Your task to perform on an android device: Go to wifi settings Image 0: 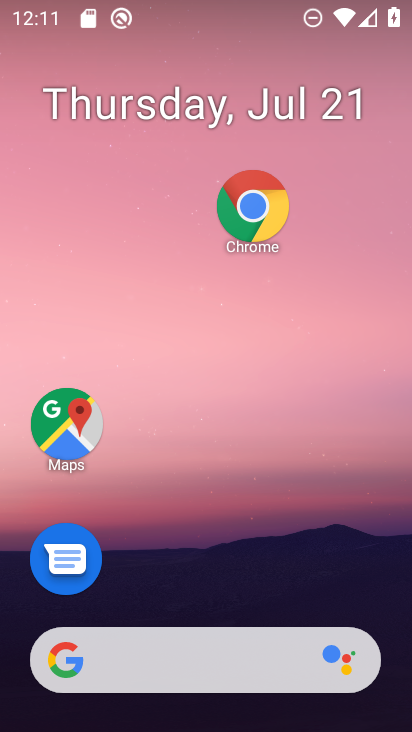
Step 0: drag from (146, 631) to (253, 132)
Your task to perform on an android device: Go to wifi settings Image 1: 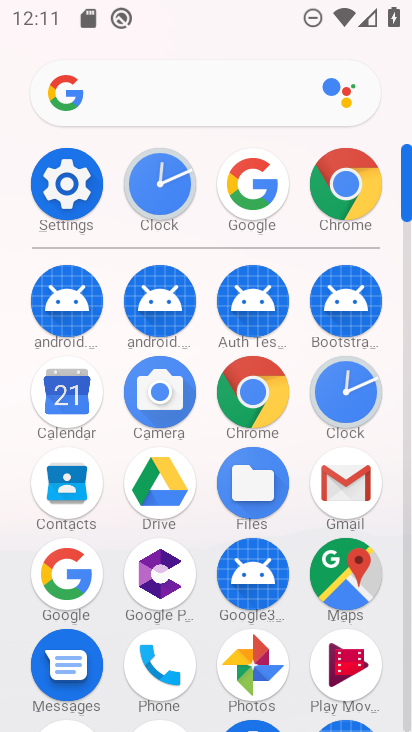
Step 1: click (84, 178)
Your task to perform on an android device: Go to wifi settings Image 2: 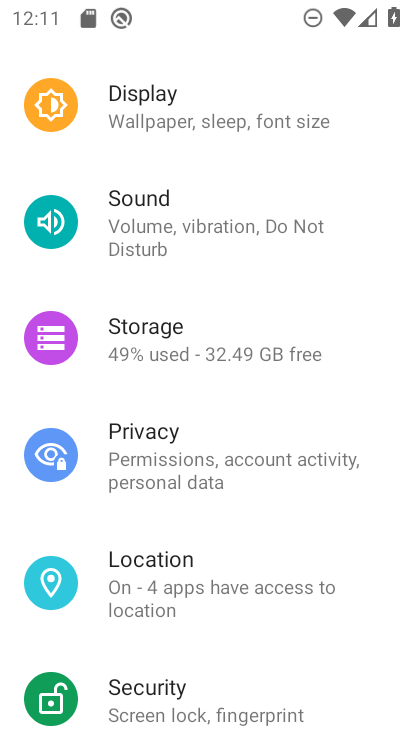
Step 2: drag from (152, 306) to (186, 681)
Your task to perform on an android device: Go to wifi settings Image 3: 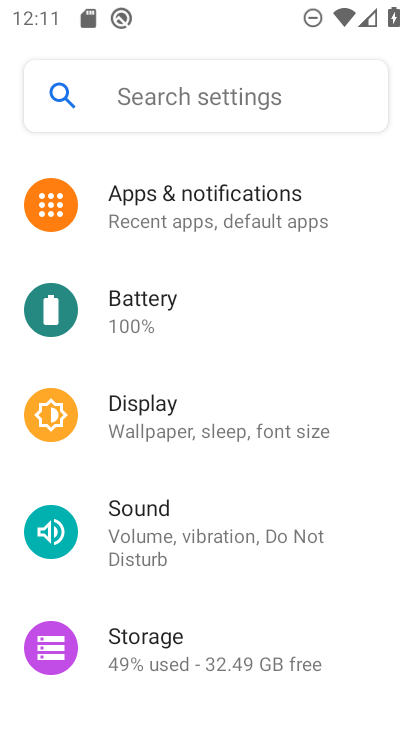
Step 3: drag from (193, 394) to (180, 713)
Your task to perform on an android device: Go to wifi settings Image 4: 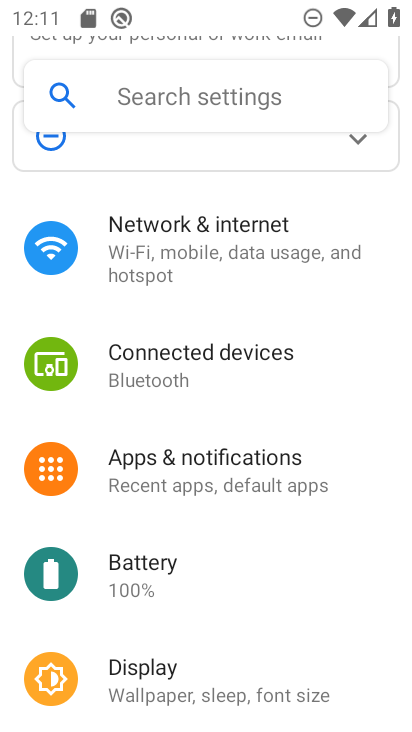
Step 4: click (178, 256)
Your task to perform on an android device: Go to wifi settings Image 5: 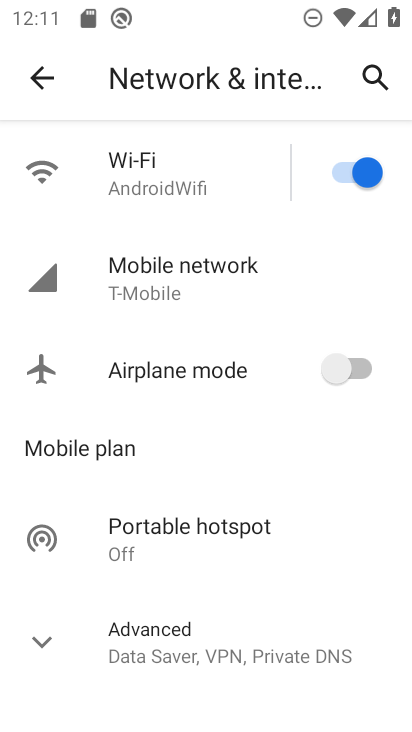
Step 5: click (166, 184)
Your task to perform on an android device: Go to wifi settings Image 6: 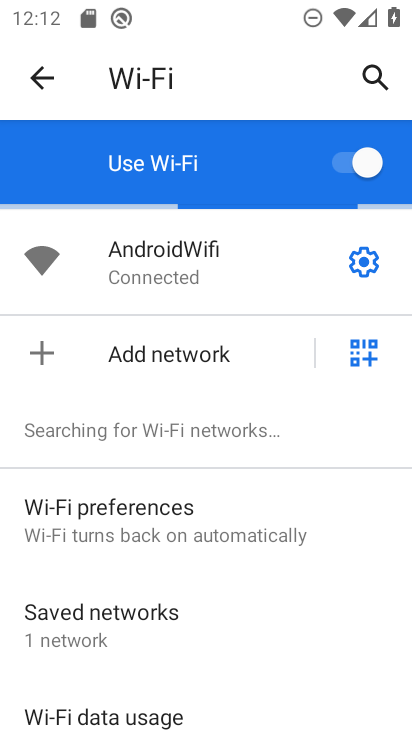
Step 6: task complete